Your task to perform on an android device: turn off notifications settings in the gmail app Image 0: 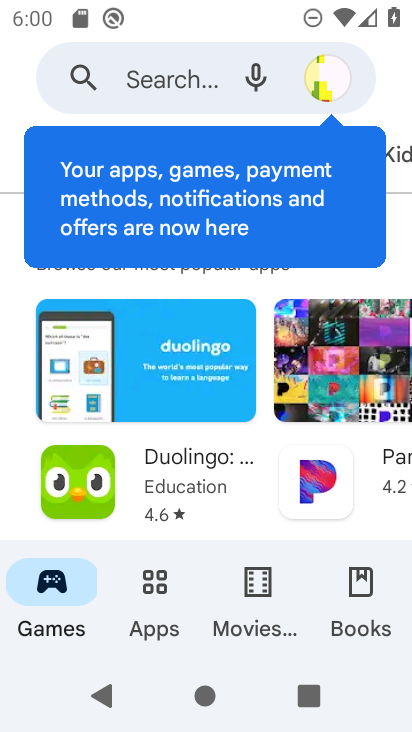
Step 0: press home button
Your task to perform on an android device: turn off notifications settings in the gmail app Image 1: 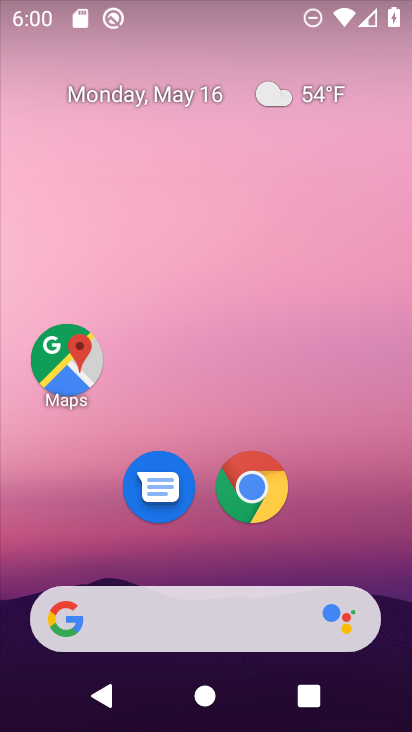
Step 1: drag from (214, 579) to (235, 325)
Your task to perform on an android device: turn off notifications settings in the gmail app Image 2: 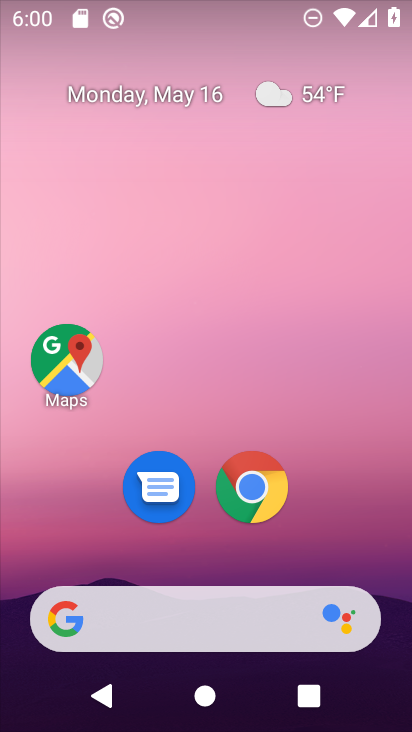
Step 2: drag from (237, 556) to (282, 219)
Your task to perform on an android device: turn off notifications settings in the gmail app Image 3: 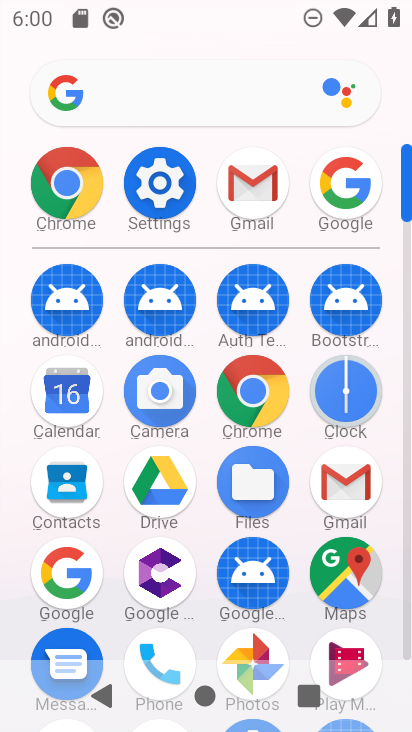
Step 3: click (342, 491)
Your task to perform on an android device: turn off notifications settings in the gmail app Image 4: 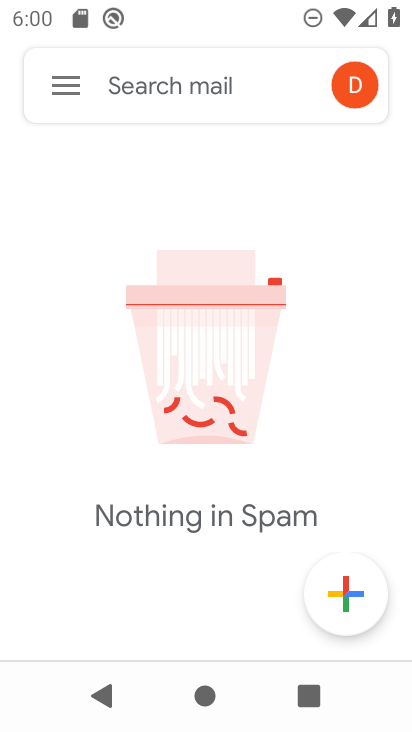
Step 4: click (67, 90)
Your task to perform on an android device: turn off notifications settings in the gmail app Image 5: 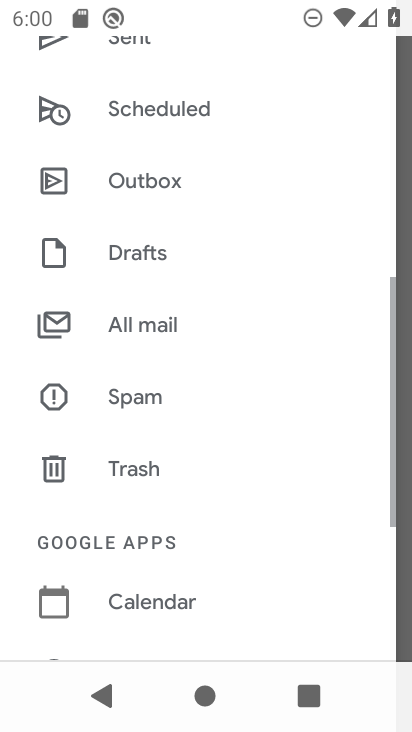
Step 5: drag from (160, 611) to (162, 225)
Your task to perform on an android device: turn off notifications settings in the gmail app Image 6: 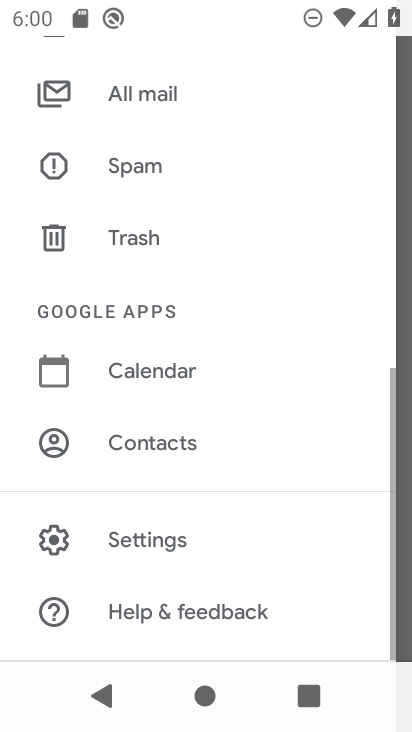
Step 6: click (147, 545)
Your task to perform on an android device: turn off notifications settings in the gmail app Image 7: 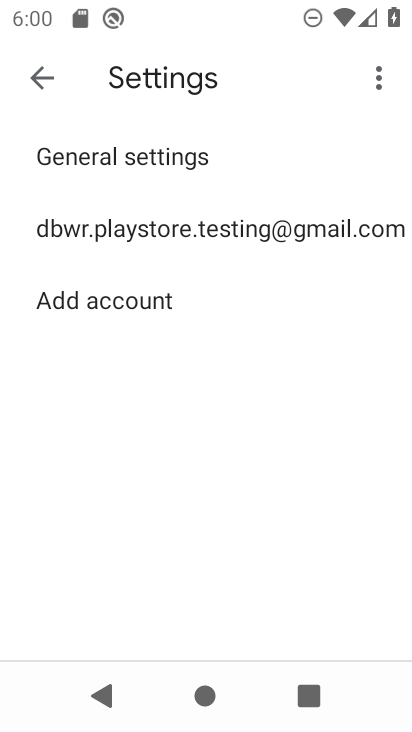
Step 7: click (150, 153)
Your task to perform on an android device: turn off notifications settings in the gmail app Image 8: 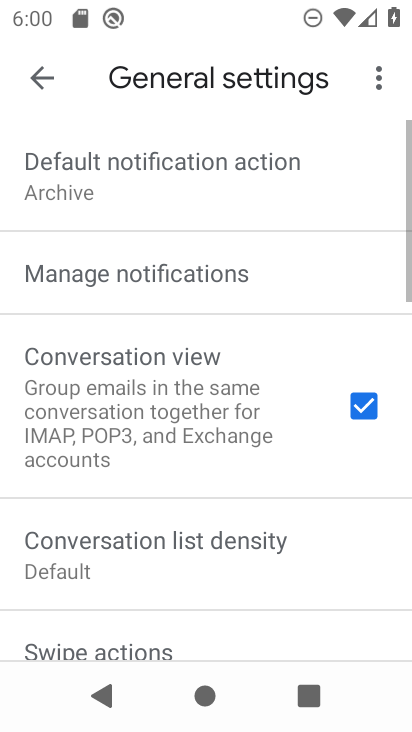
Step 8: click (142, 271)
Your task to perform on an android device: turn off notifications settings in the gmail app Image 9: 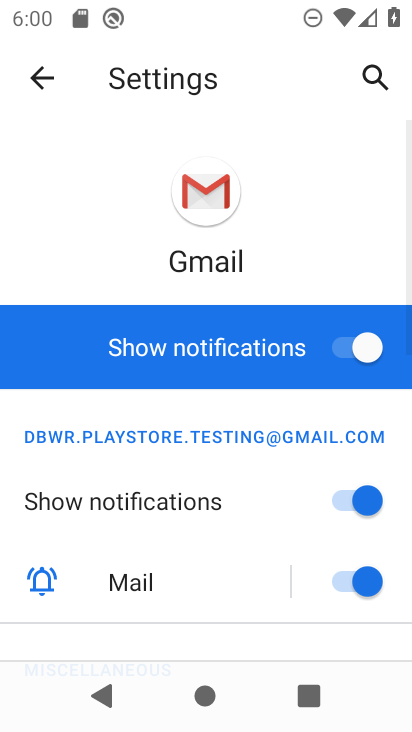
Step 9: click (346, 345)
Your task to perform on an android device: turn off notifications settings in the gmail app Image 10: 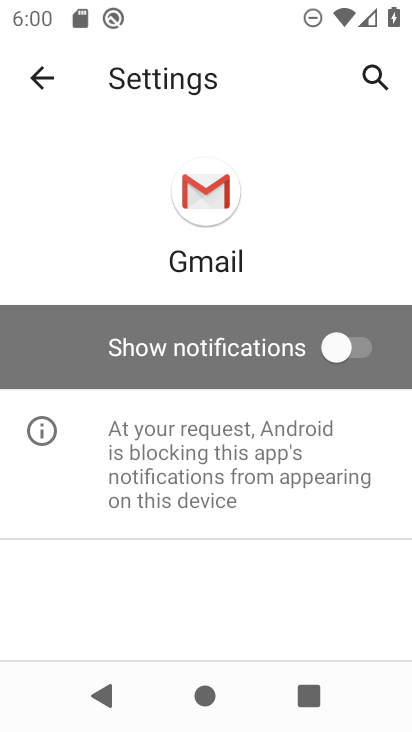
Step 10: task complete